Your task to perform on an android device: Find coffee shops on Maps Image 0: 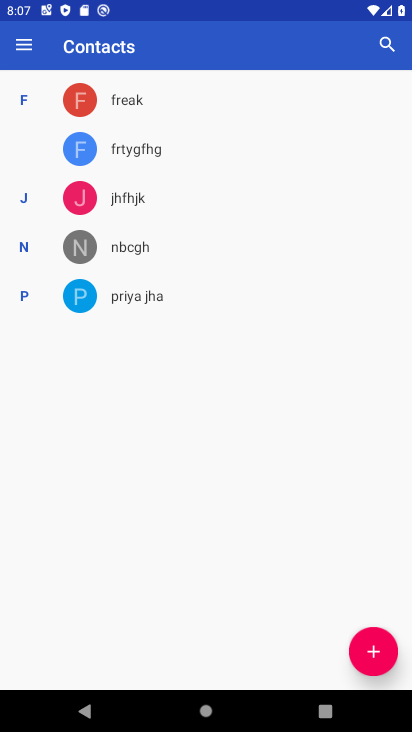
Step 0: press home button
Your task to perform on an android device: Find coffee shops on Maps Image 1: 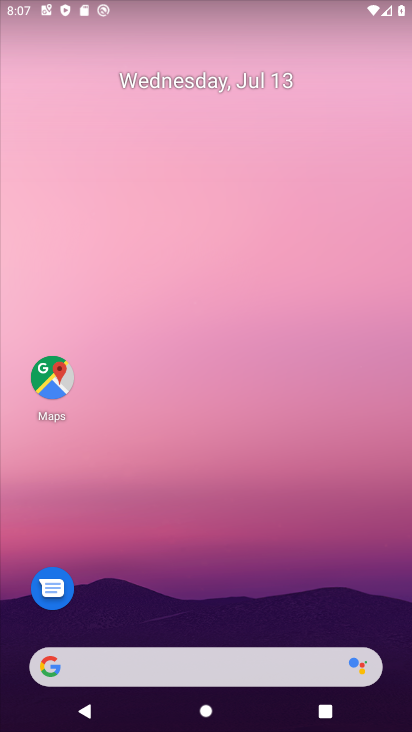
Step 1: click (54, 394)
Your task to perform on an android device: Find coffee shops on Maps Image 2: 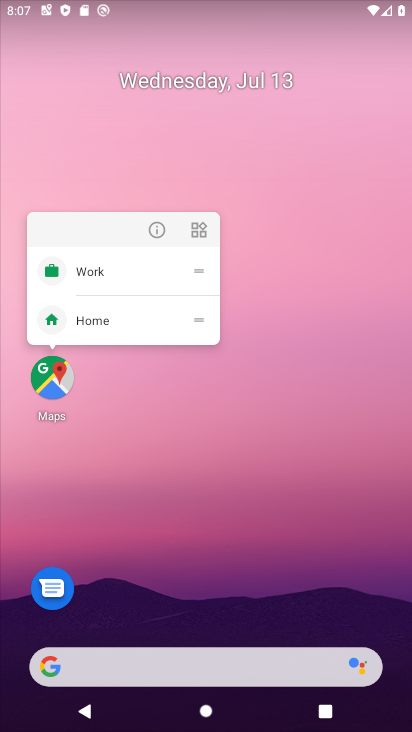
Step 2: click (54, 394)
Your task to perform on an android device: Find coffee shops on Maps Image 3: 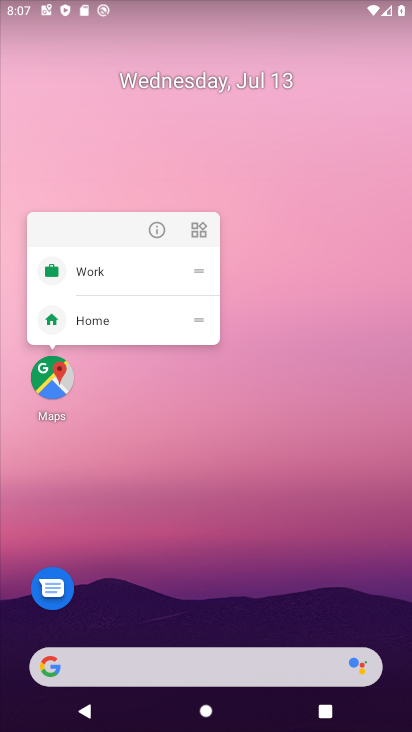
Step 3: click (54, 394)
Your task to perform on an android device: Find coffee shops on Maps Image 4: 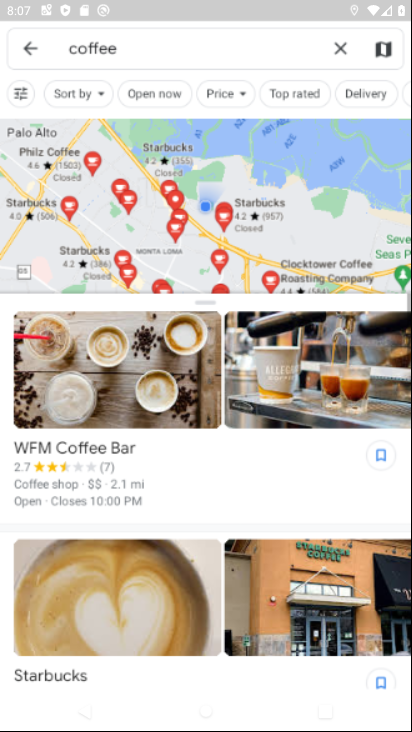
Step 4: click (221, 47)
Your task to perform on an android device: Find coffee shops on Maps Image 5: 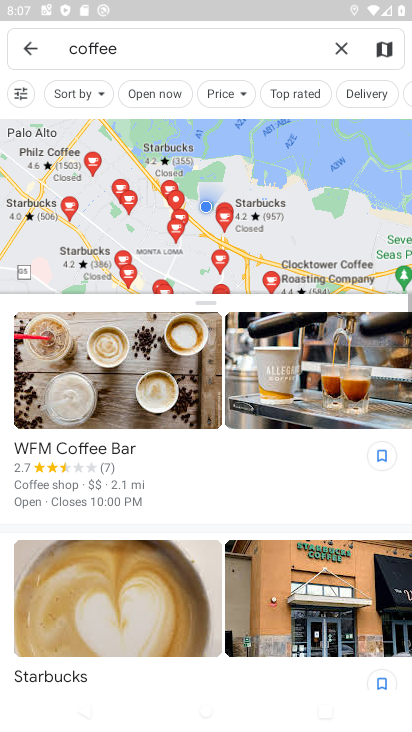
Step 5: click (221, 50)
Your task to perform on an android device: Find coffee shops on Maps Image 6: 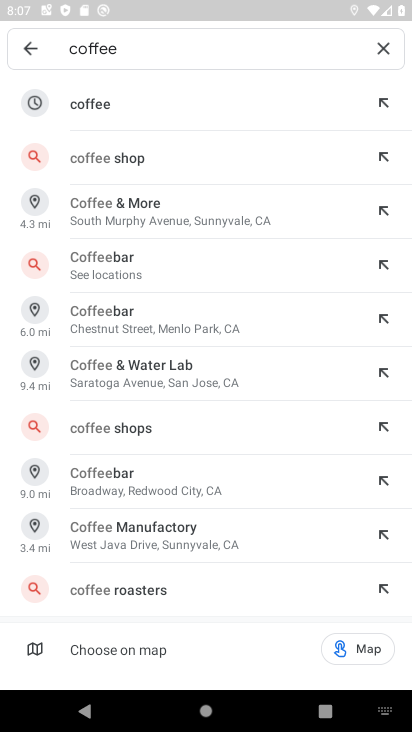
Step 6: click (186, 155)
Your task to perform on an android device: Find coffee shops on Maps Image 7: 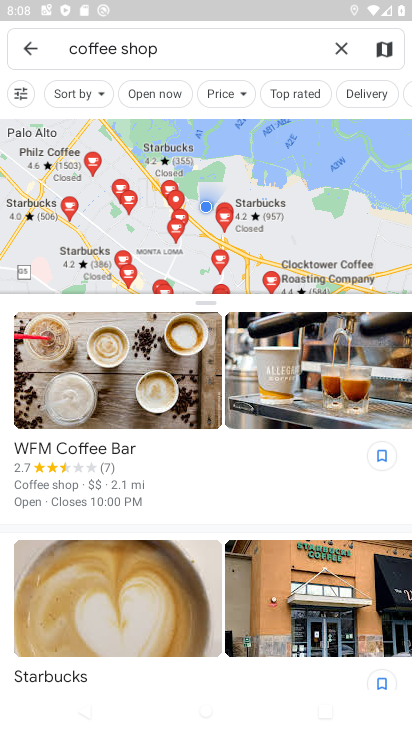
Step 7: task complete